Your task to perform on an android device: Search for pizza restaurants on Maps Image 0: 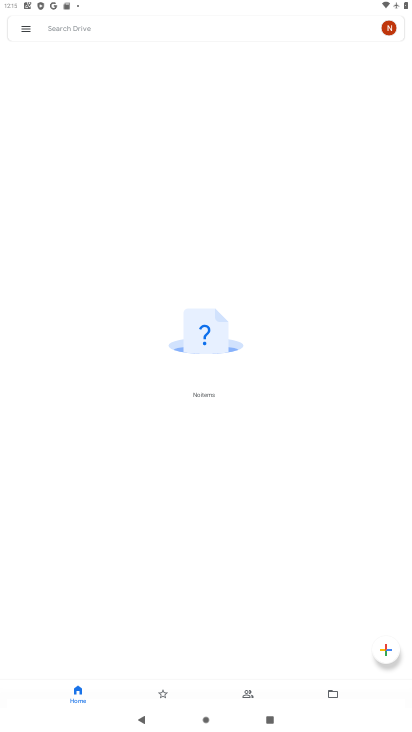
Step 0: press home button
Your task to perform on an android device: Search for pizza restaurants on Maps Image 1: 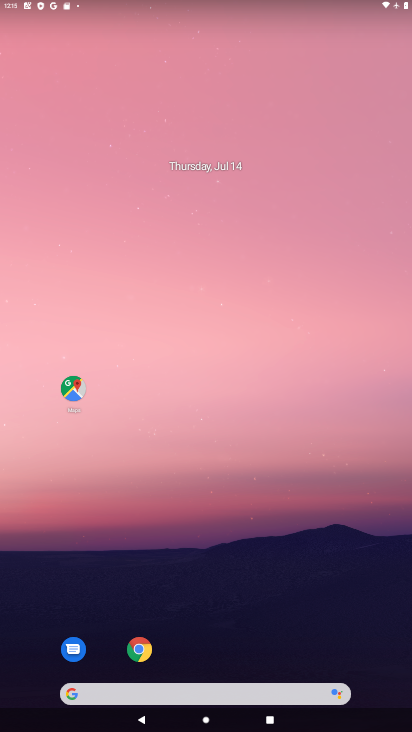
Step 1: drag from (244, 646) to (261, 173)
Your task to perform on an android device: Search for pizza restaurants on Maps Image 2: 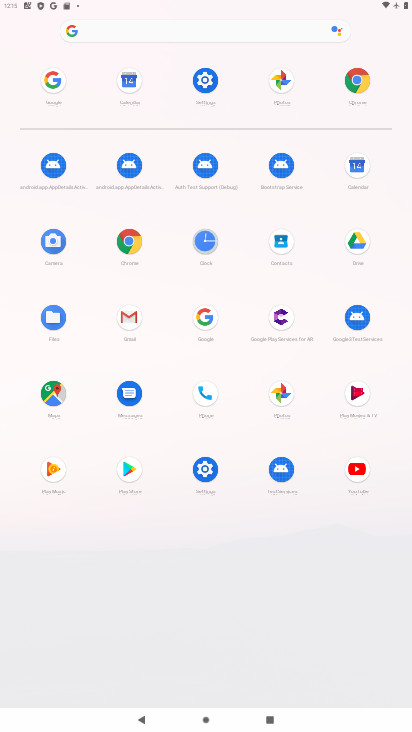
Step 2: click (57, 398)
Your task to perform on an android device: Search for pizza restaurants on Maps Image 3: 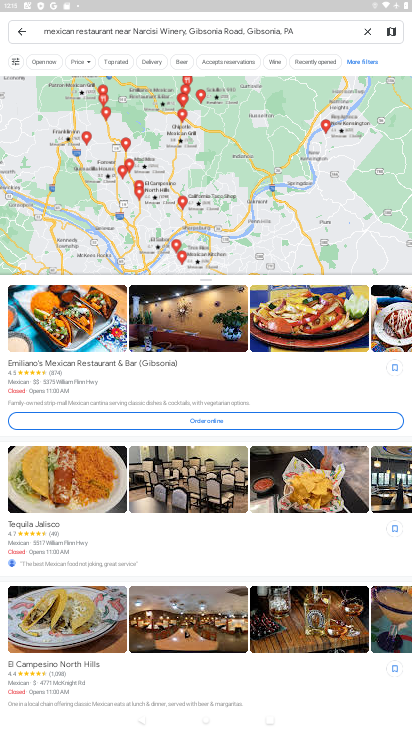
Step 3: click (368, 26)
Your task to perform on an android device: Search for pizza restaurants on Maps Image 4: 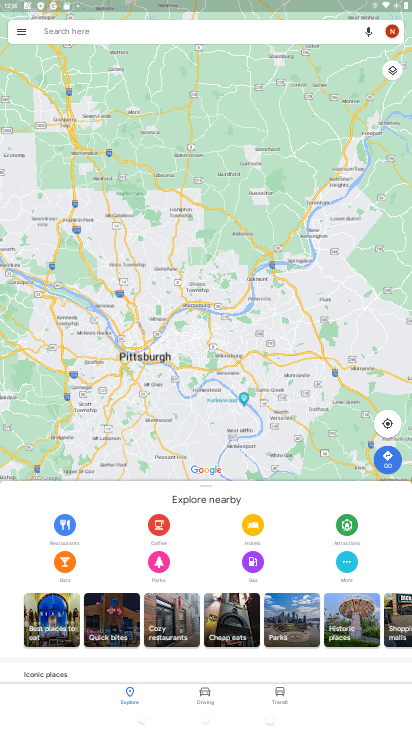
Step 4: click (175, 27)
Your task to perform on an android device: Search for pizza restaurants on Maps Image 5: 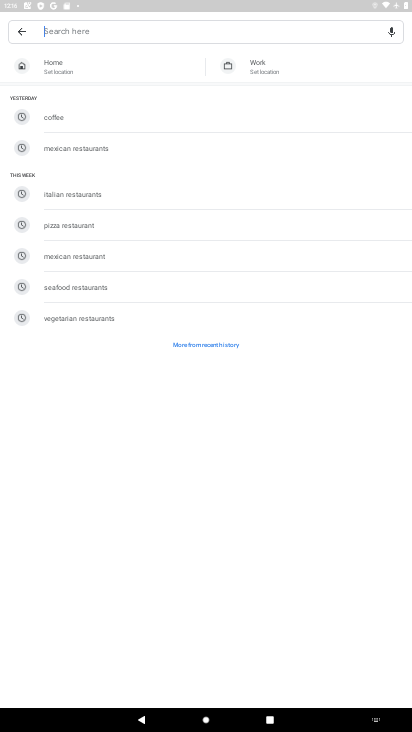
Step 5: type " pizza restaurants "
Your task to perform on an android device: Search for pizza restaurants on Maps Image 6: 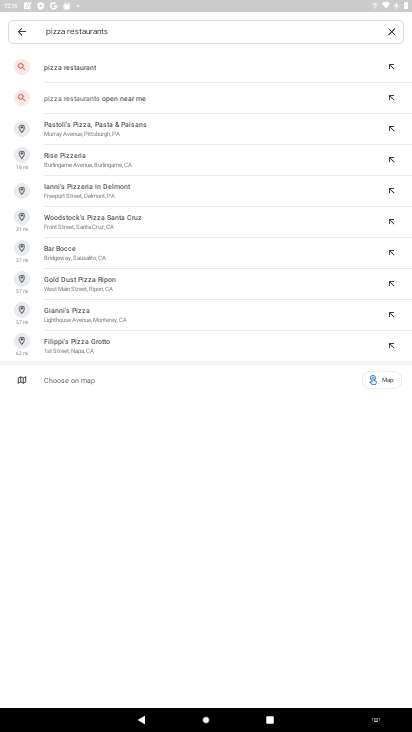
Step 6: click (97, 59)
Your task to perform on an android device: Search for pizza restaurants on Maps Image 7: 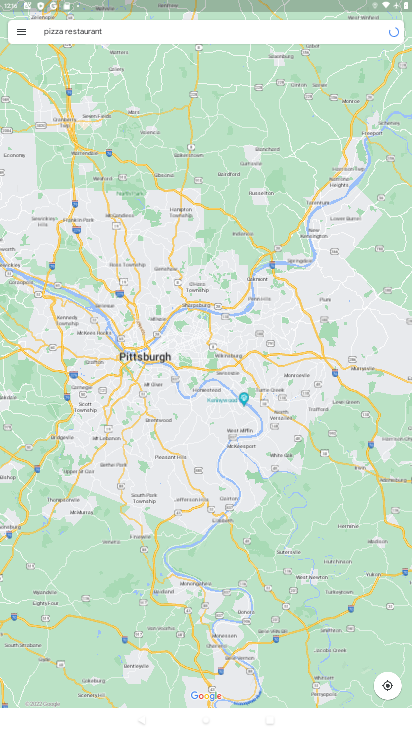
Step 7: task complete